Your task to perform on an android device: Go to network settings Image 0: 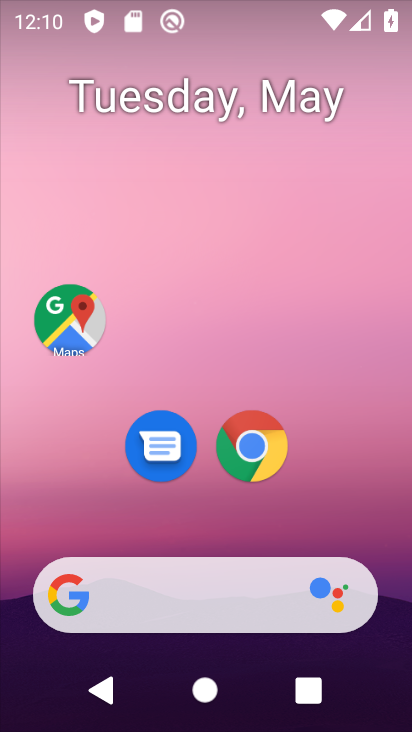
Step 0: drag from (166, 610) to (183, 11)
Your task to perform on an android device: Go to network settings Image 1: 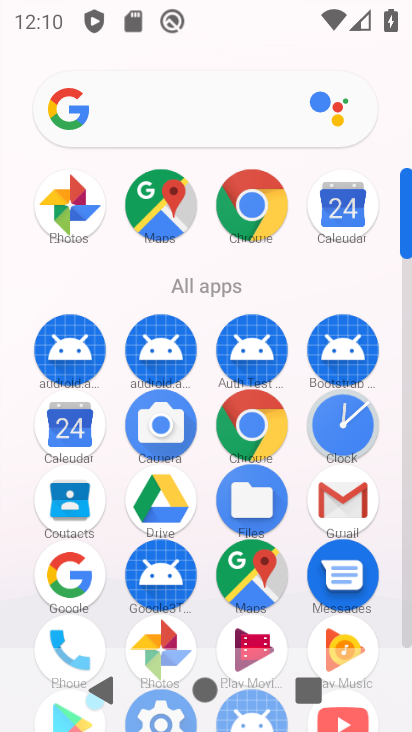
Step 1: drag from (200, 510) to (151, 11)
Your task to perform on an android device: Go to network settings Image 2: 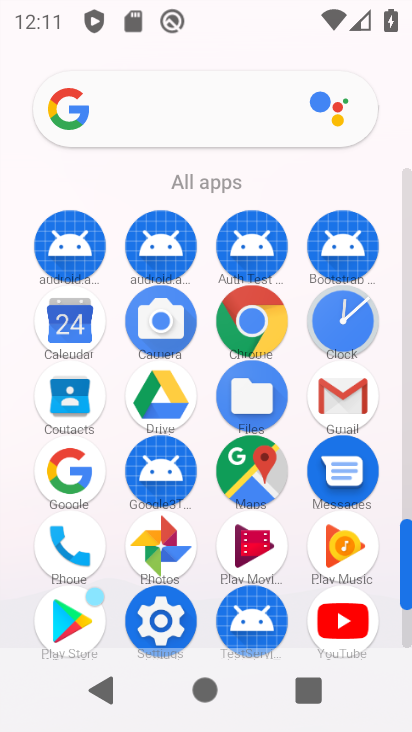
Step 2: click (161, 623)
Your task to perform on an android device: Go to network settings Image 3: 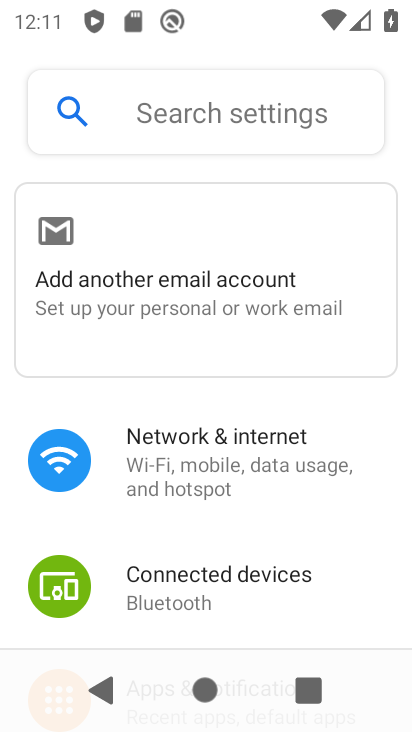
Step 3: click (227, 476)
Your task to perform on an android device: Go to network settings Image 4: 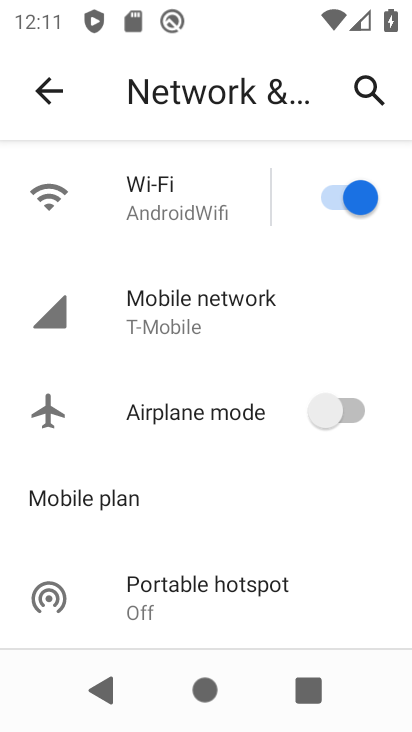
Step 4: click (164, 199)
Your task to perform on an android device: Go to network settings Image 5: 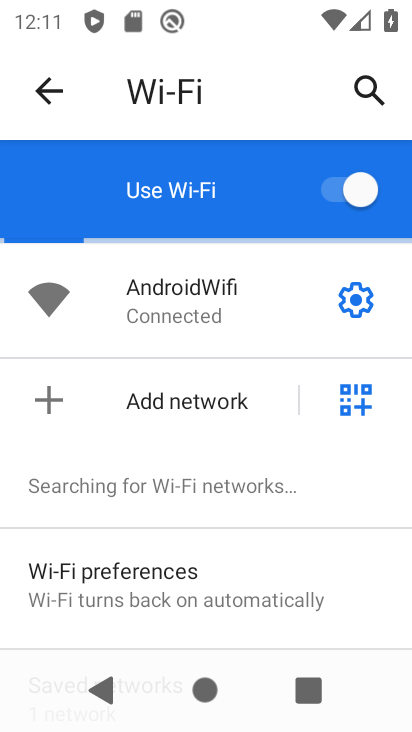
Step 5: task complete